Your task to perform on an android device: Check the news Image 0: 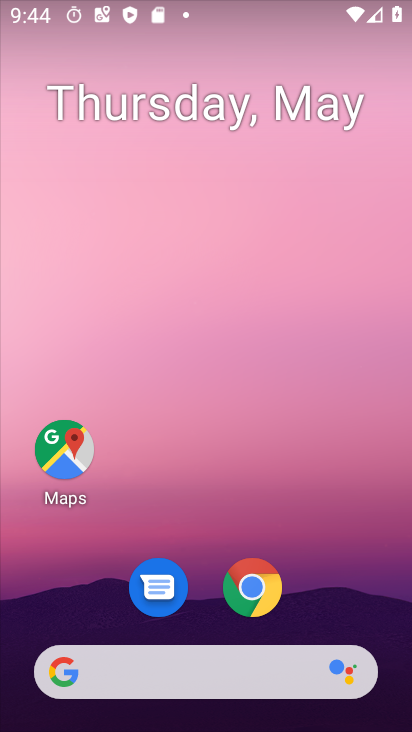
Step 0: click (113, 668)
Your task to perform on an android device: Check the news Image 1: 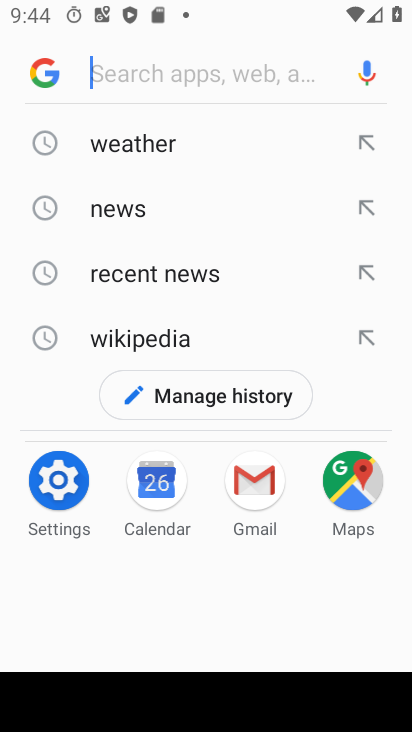
Step 1: click (106, 208)
Your task to perform on an android device: Check the news Image 2: 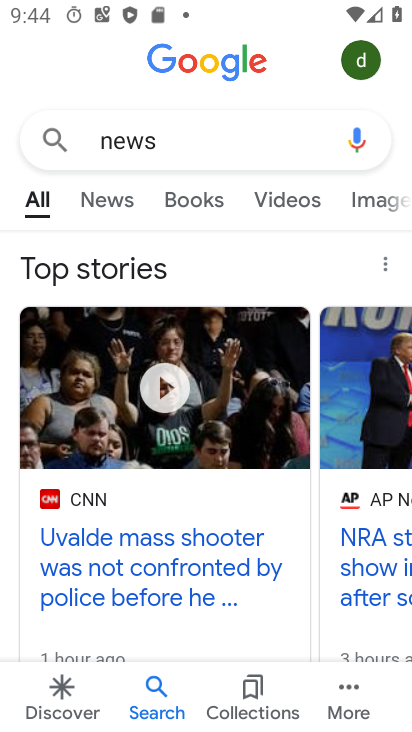
Step 2: click (106, 208)
Your task to perform on an android device: Check the news Image 3: 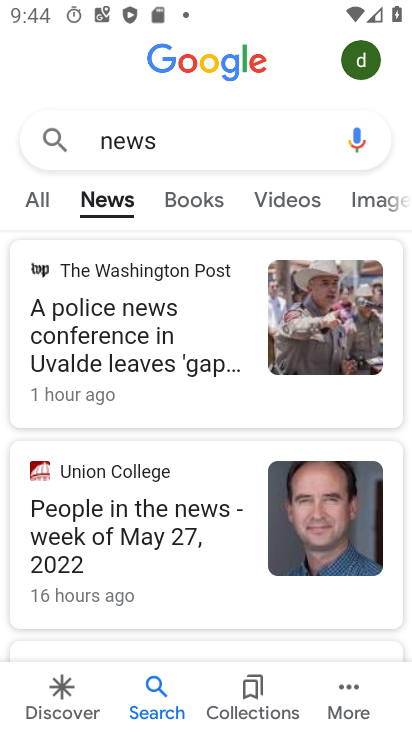
Step 3: task complete